Your task to perform on an android device: turn on translation in the chrome app Image 0: 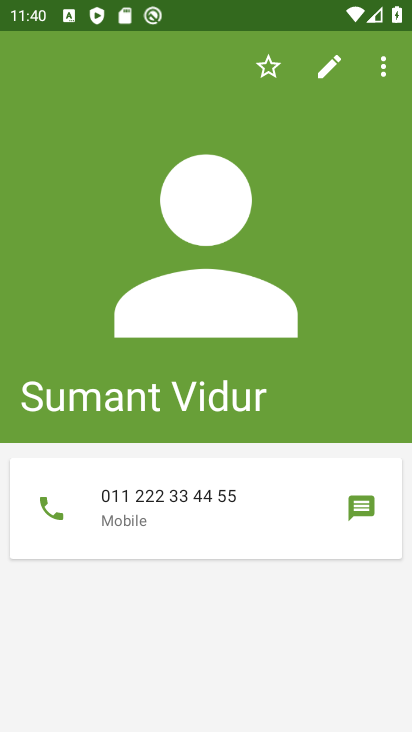
Step 0: press home button
Your task to perform on an android device: turn on translation in the chrome app Image 1: 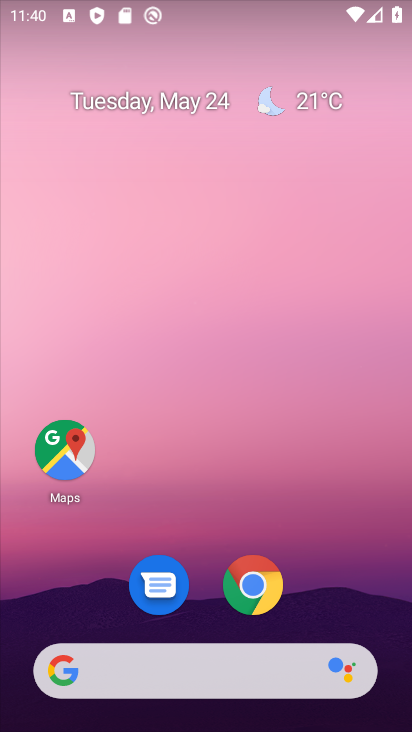
Step 1: click (247, 580)
Your task to perform on an android device: turn on translation in the chrome app Image 2: 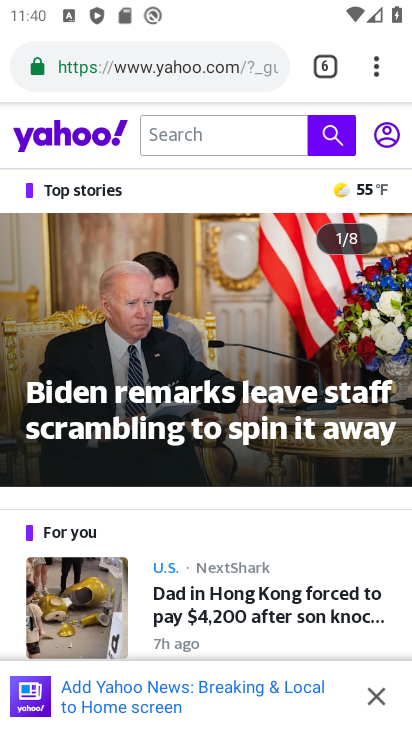
Step 2: click (376, 71)
Your task to perform on an android device: turn on translation in the chrome app Image 3: 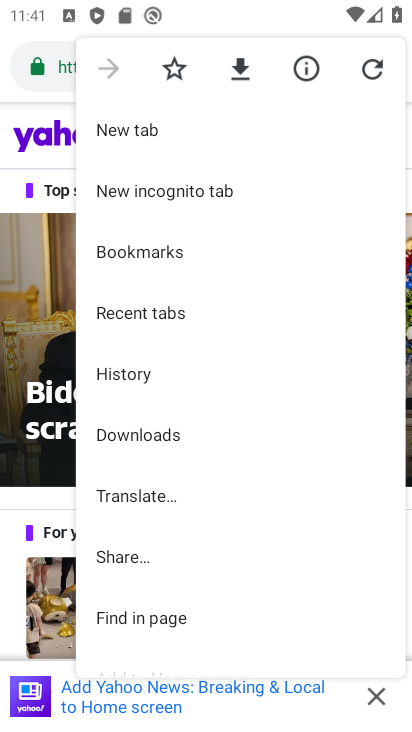
Step 3: drag from (240, 535) to (308, 257)
Your task to perform on an android device: turn on translation in the chrome app Image 4: 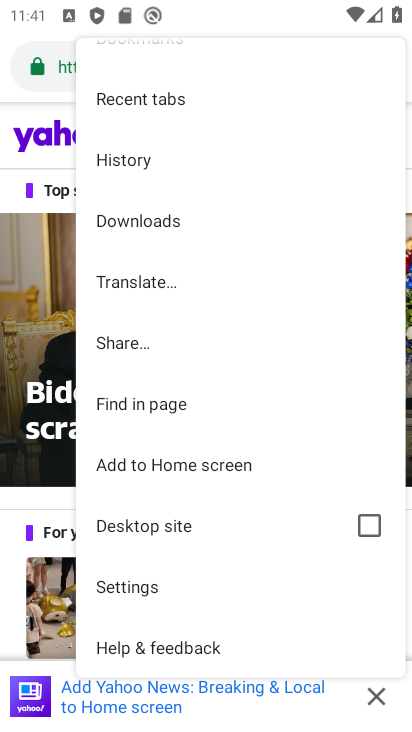
Step 4: click (163, 582)
Your task to perform on an android device: turn on translation in the chrome app Image 5: 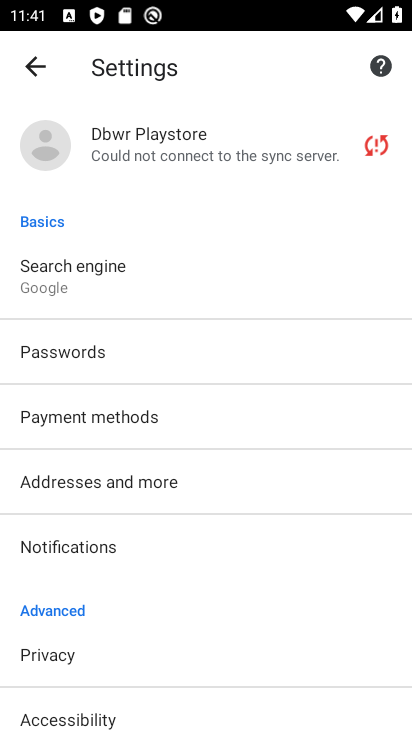
Step 5: drag from (192, 547) to (282, 255)
Your task to perform on an android device: turn on translation in the chrome app Image 6: 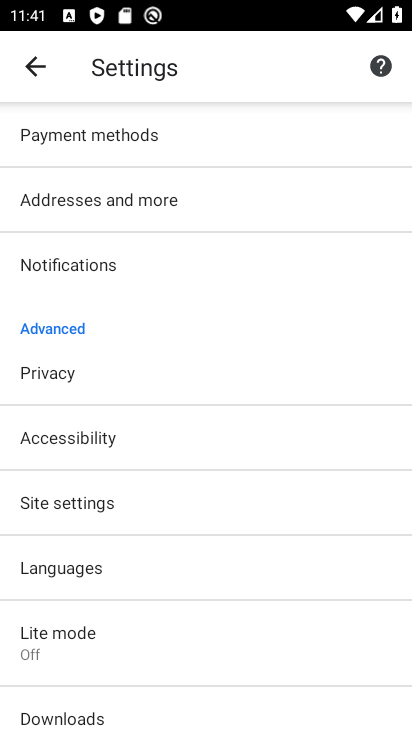
Step 6: click (187, 561)
Your task to perform on an android device: turn on translation in the chrome app Image 7: 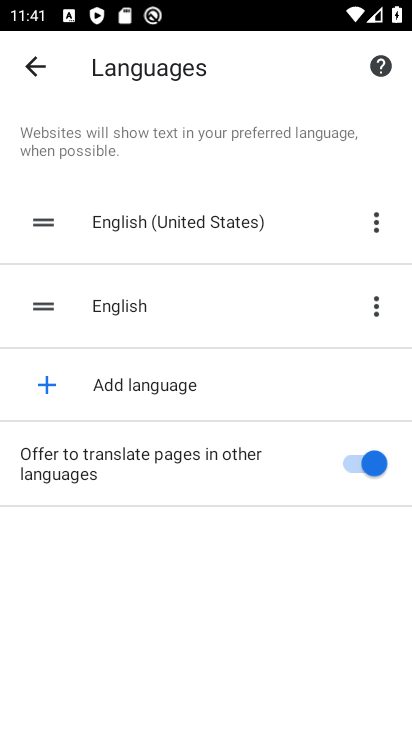
Step 7: task complete